Your task to perform on an android device: turn off smart reply in the gmail app Image 0: 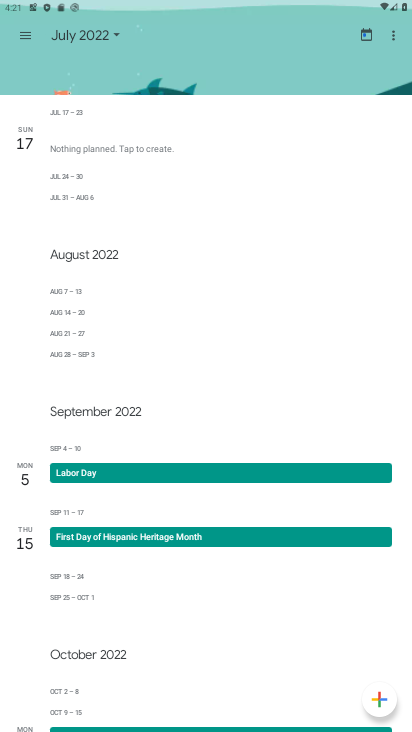
Step 0: press home button
Your task to perform on an android device: turn off smart reply in the gmail app Image 1: 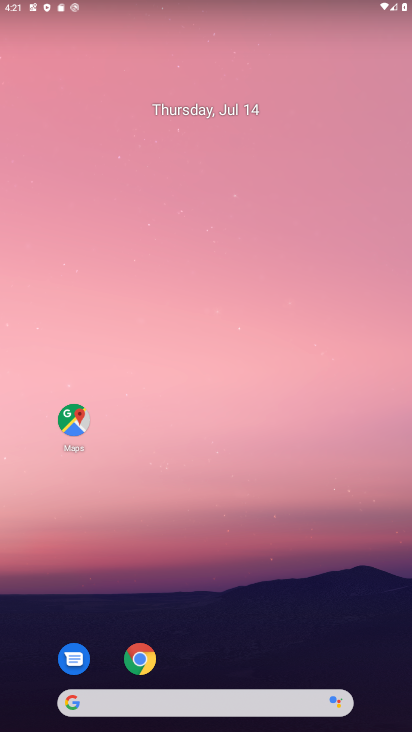
Step 1: drag from (212, 665) to (226, 202)
Your task to perform on an android device: turn off smart reply in the gmail app Image 2: 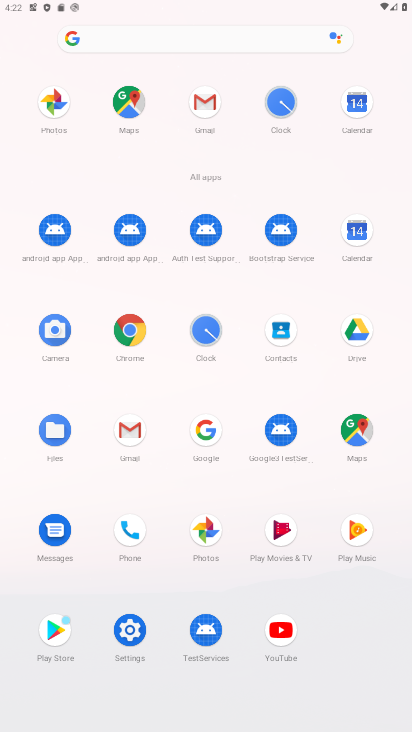
Step 2: click (130, 425)
Your task to perform on an android device: turn off smart reply in the gmail app Image 3: 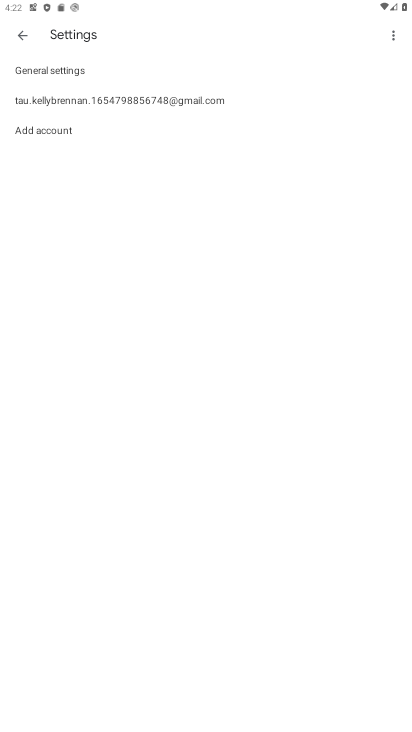
Step 3: click (14, 34)
Your task to perform on an android device: turn off smart reply in the gmail app Image 4: 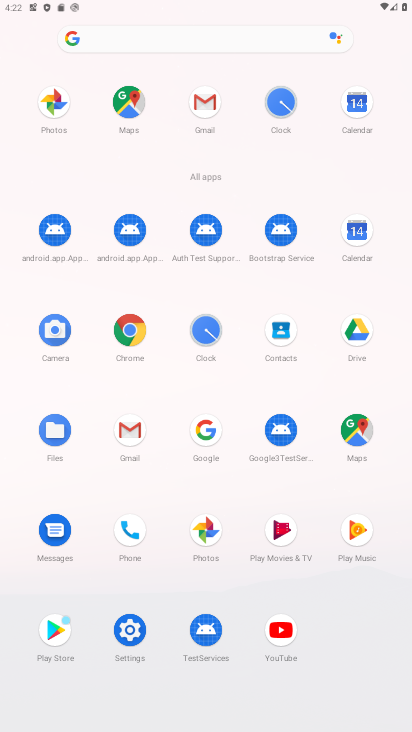
Step 4: click (201, 108)
Your task to perform on an android device: turn off smart reply in the gmail app Image 5: 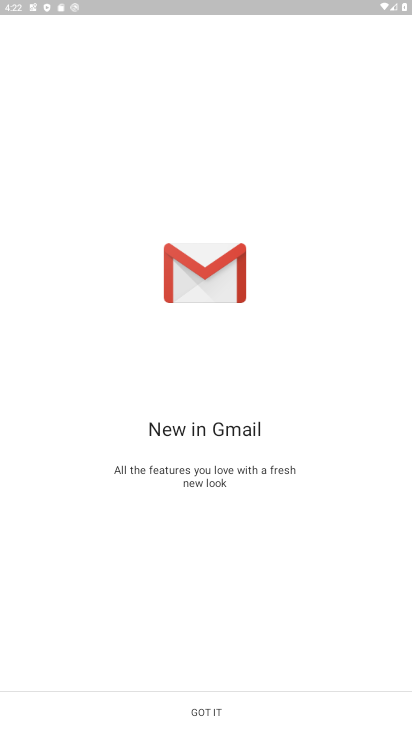
Step 5: click (205, 706)
Your task to perform on an android device: turn off smart reply in the gmail app Image 6: 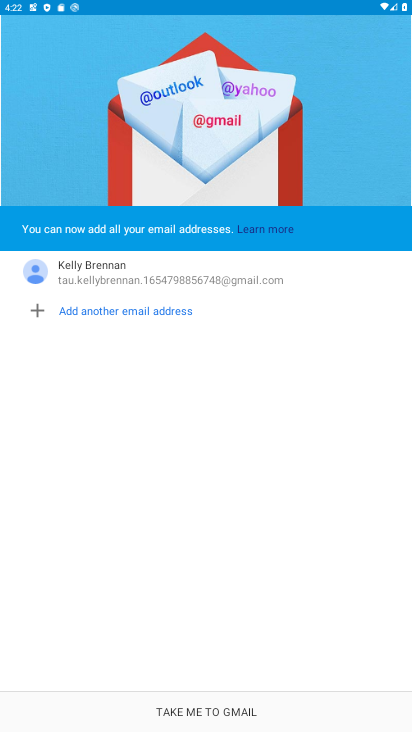
Step 6: click (208, 706)
Your task to perform on an android device: turn off smart reply in the gmail app Image 7: 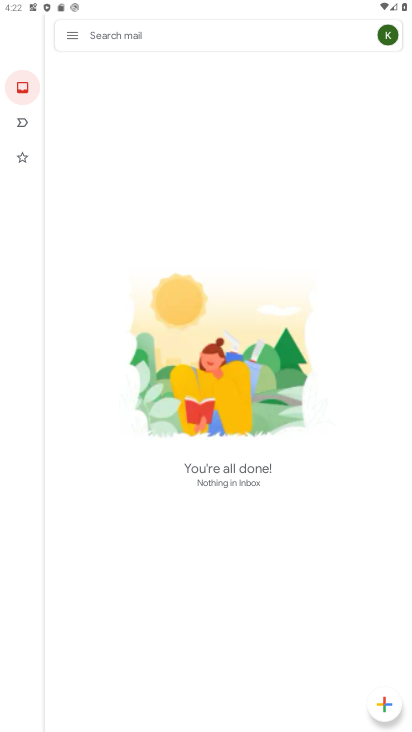
Step 7: click (66, 33)
Your task to perform on an android device: turn off smart reply in the gmail app Image 8: 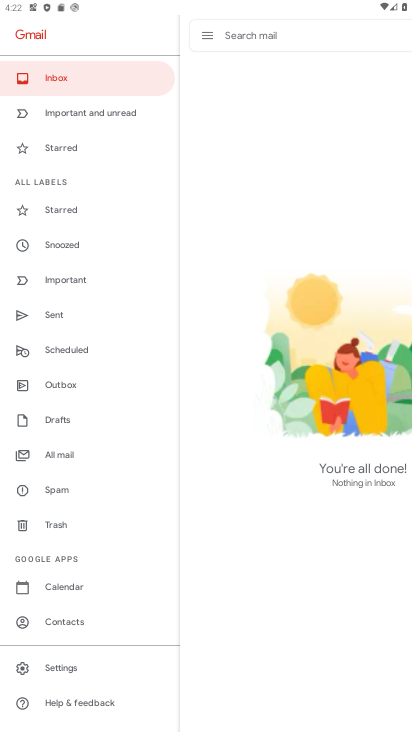
Step 8: click (84, 661)
Your task to perform on an android device: turn off smart reply in the gmail app Image 9: 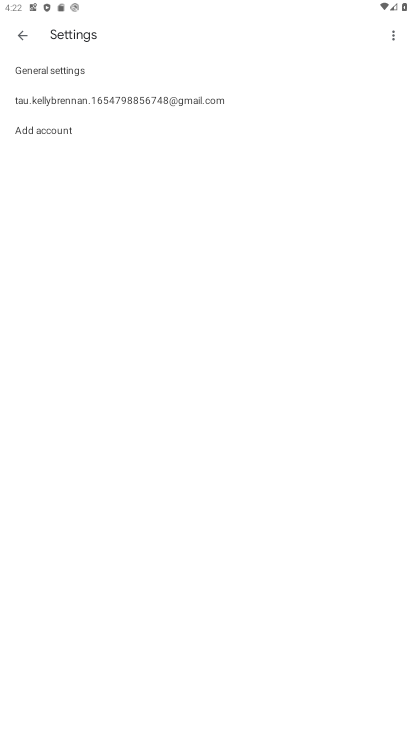
Step 9: click (234, 95)
Your task to perform on an android device: turn off smart reply in the gmail app Image 10: 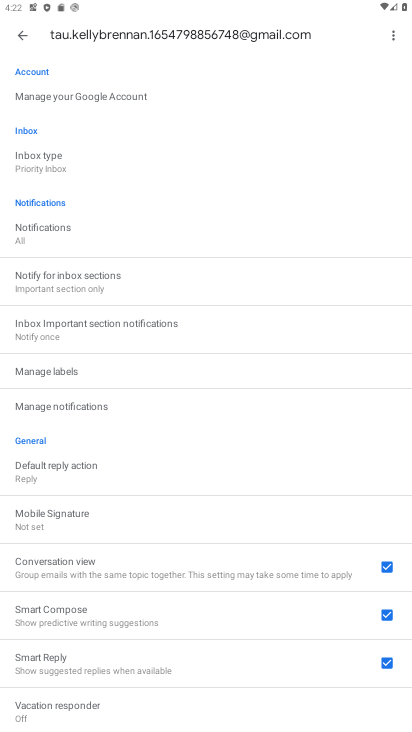
Step 10: click (388, 659)
Your task to perform on an android device: turn off smart reply in the gmail app Image 11: 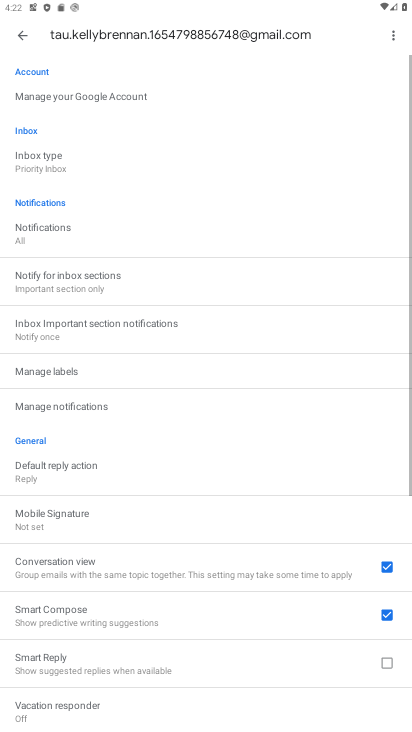
Step 11: task complete